Your task to perform on an android device: Show me productivity apps on the Play Store Image 0: 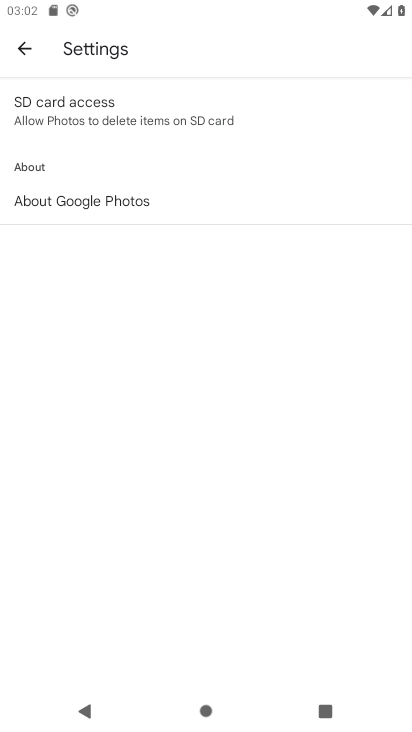
Step 0: press home button
Your task to perform on an android device: Show me productivity apps on the Play Store Image 1: 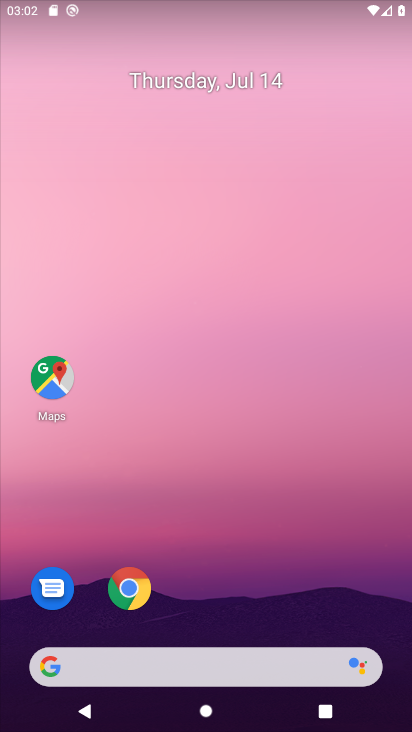
Step 1: drag from (272, 607) to (175, 60)
Your task to perform on an android device: Show me productivity apps on the Play Store Image 2: 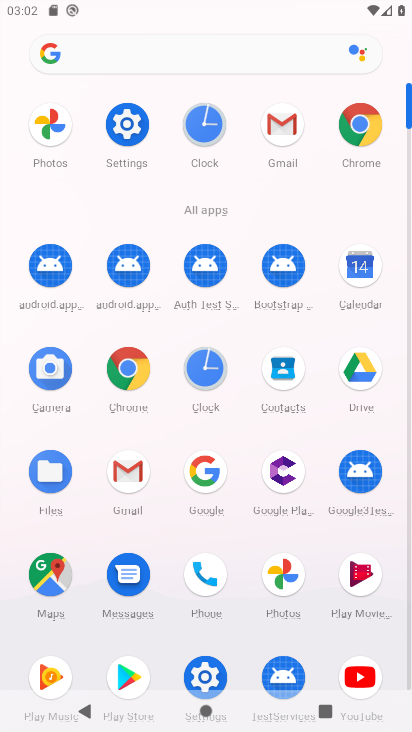
Step 2: click (131, 678)
Your task to perform on an android device: Show me productivity apps on the Play Store Image 3: 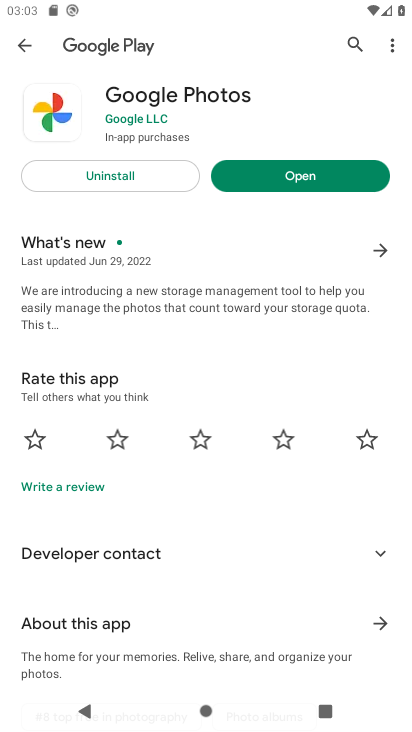
Step 3: click (27, 50)
Your task to perform on an android device: Show me productivity apps on the Play Store Image 4: 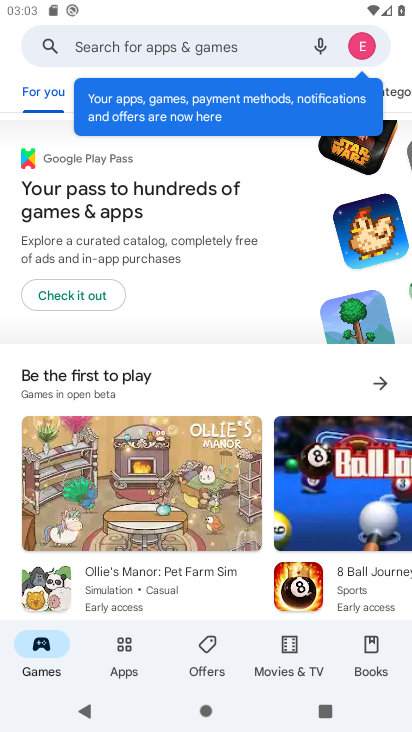
Step 4: click (127, 642)
Your task to perform on an android device: Show me productivity apps on the Play Store Image 5: 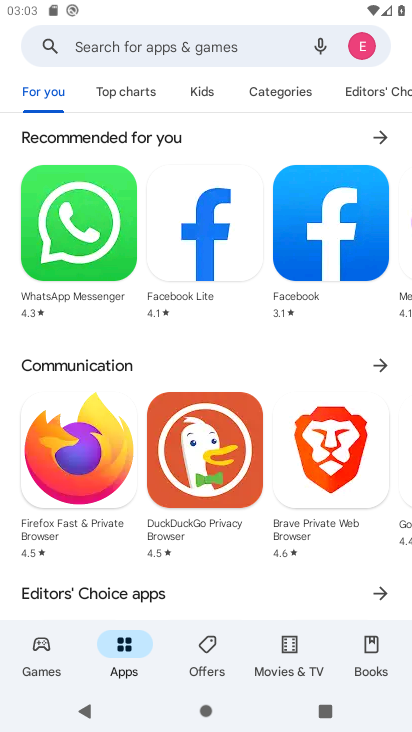
Step 5: click (295, 85)
Your task to perform on an android device: Show me productivity apps on the Play Store Image 6: 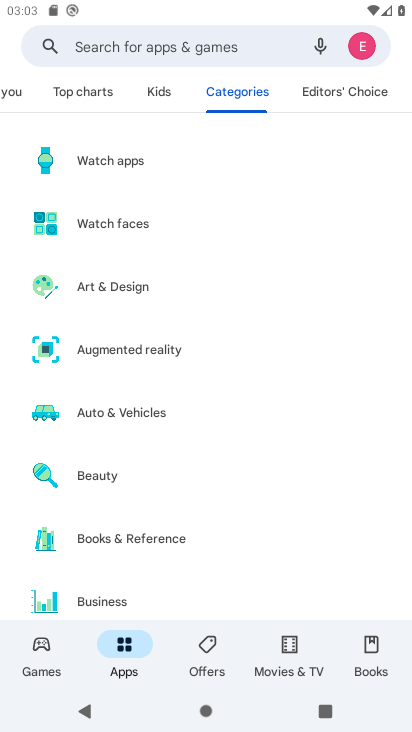
Step 6: drag from (201, 568) to (145, 260)
Your task to perform on an android device: Show me productivity apps on the Play Store Image 7: 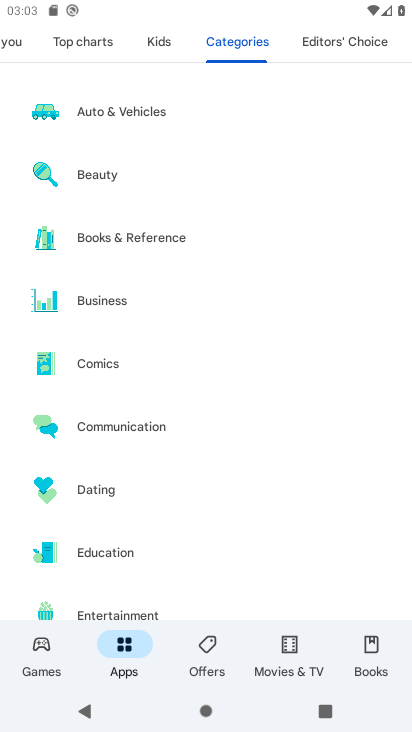
Step 7: drag from (171, 591) to (59, 259)
Your task to perform on an android device: Show me productivity apps on the Play Store Image 8: 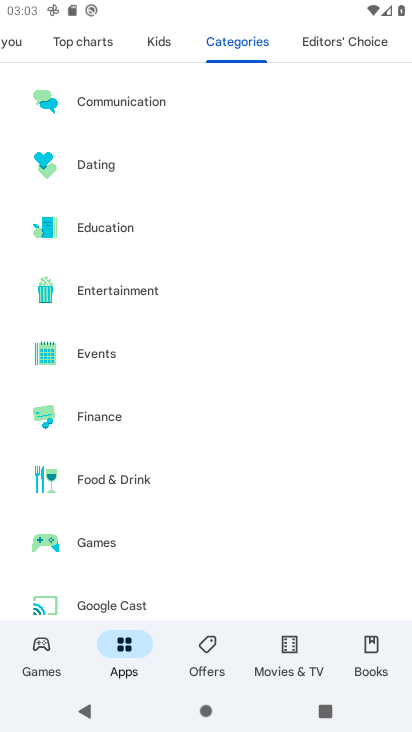
Step 8: drag from (152, 570) to (90, 264)
Your task to perform on an android device: Show me productivity apps on the Play Store Image 9: 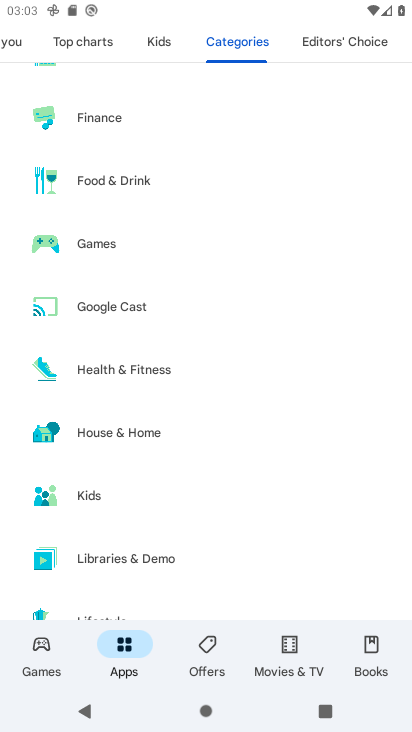
Step 9: drag from (180, 514) to (98, 181)
Your task to perform on an android device: Show me productivity apps on the Play Store Image 10: 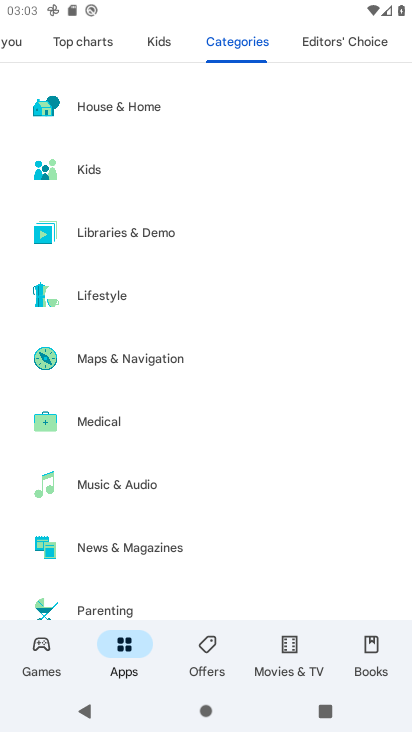
Step 10: drag from (186, 581) to (80, 132)
Your task to perform on an android device: Show me productivity apps on the Play Store Image 11: 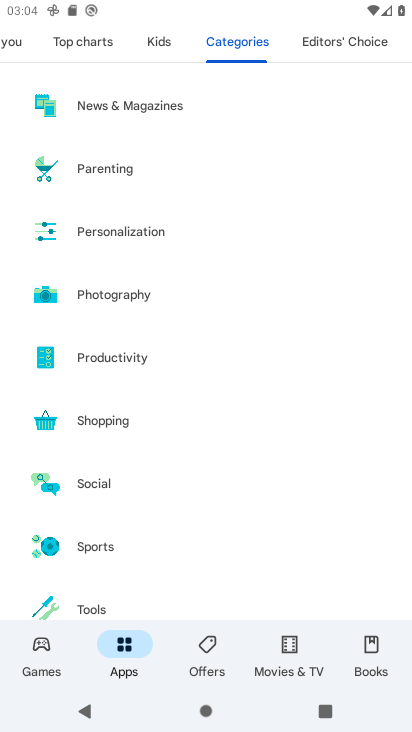
Step 11: click (133, 357)
Your task to perform on an android device: Show me productivity apps on the Play Store Image 12: 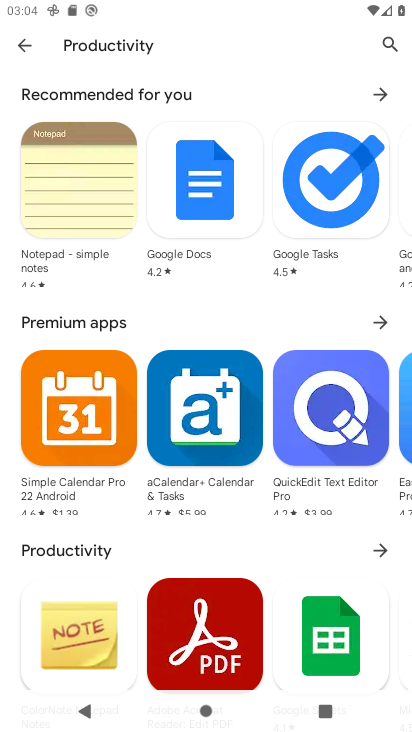
Step 12: task complete